Your task to perform on an android device: Open sound settings Image 0: 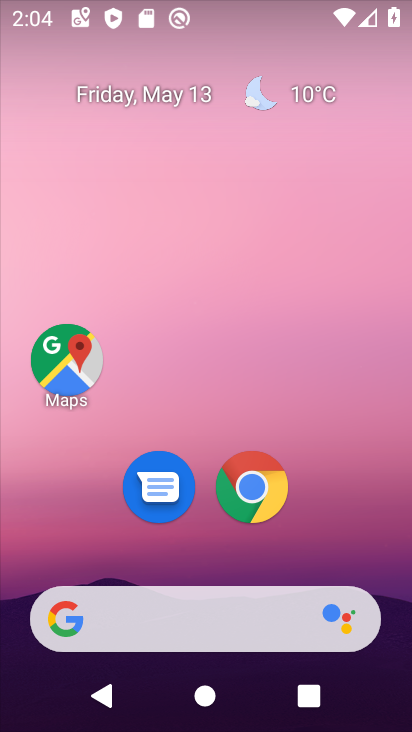
Step 0: drag from (223, 539) to (253, 204)
Your task to perform on an android device: Open sound settings Image 1: 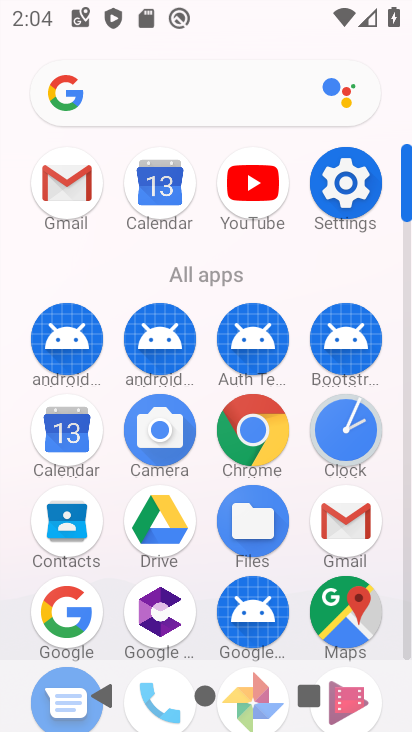
Step 1: click (342, 184)
Your task to perform on an android device: Open sound settings Image 2: 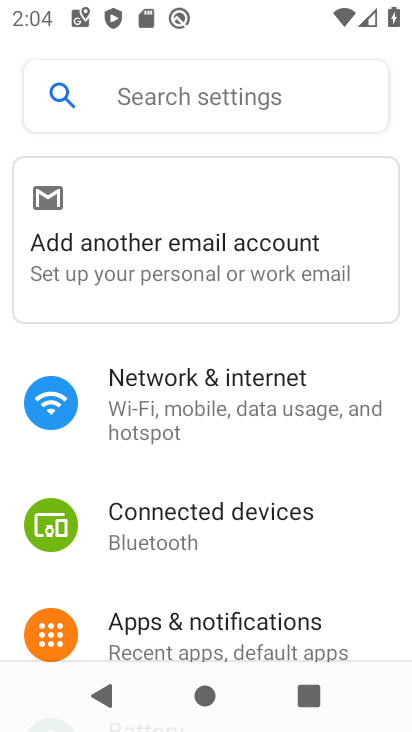
Step 2: drag from (221, 611) to (234, 208)
Your task to perform on an android device: Open sound settings Image 3: 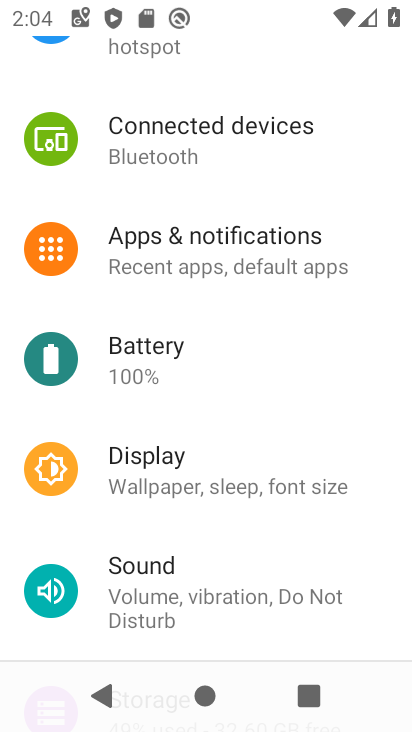
Step 3: drag from (225, 621) to (249, 404)
Your task to perform on an android device: Open sound settings Image 4: 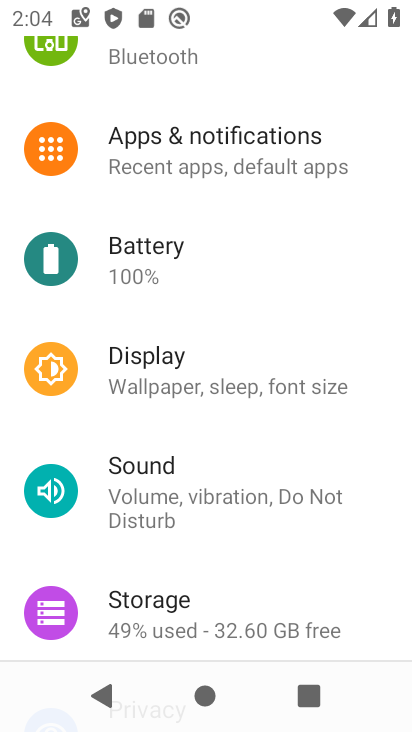
Step 4: click (157, 499)
Your task to perform on an android device: Open sound settings Image 5: 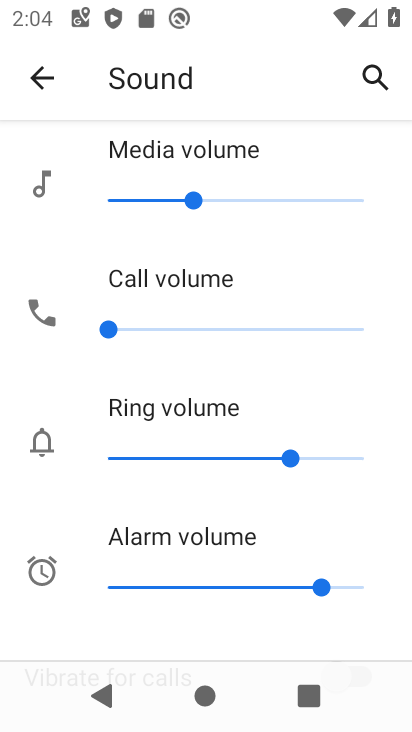
Step 5: task complete